Your task to perform on an android device: What is the news today? Image 0: 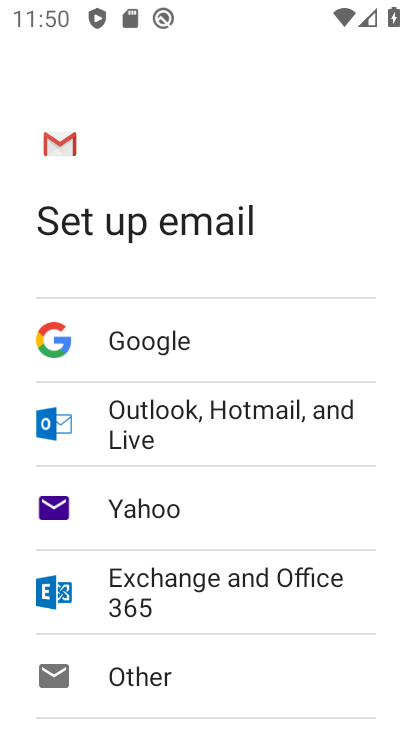
Step 0: press home button
Your task to perform on an android device: What is the news today? Image 1: 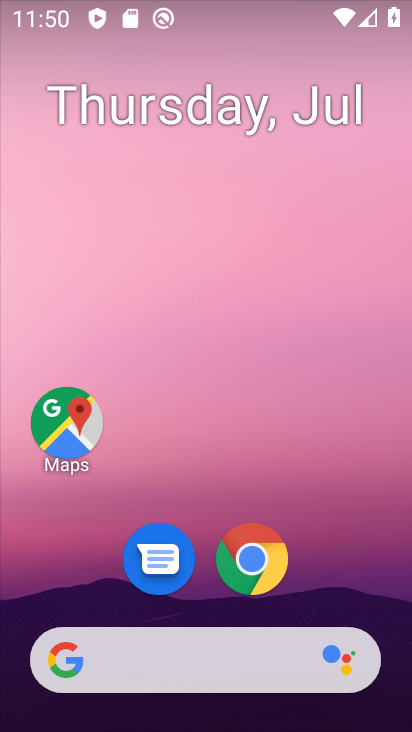
Step 1: task complete